Your task to perform on an android device: visit the assistant section in the google photos Image 0: 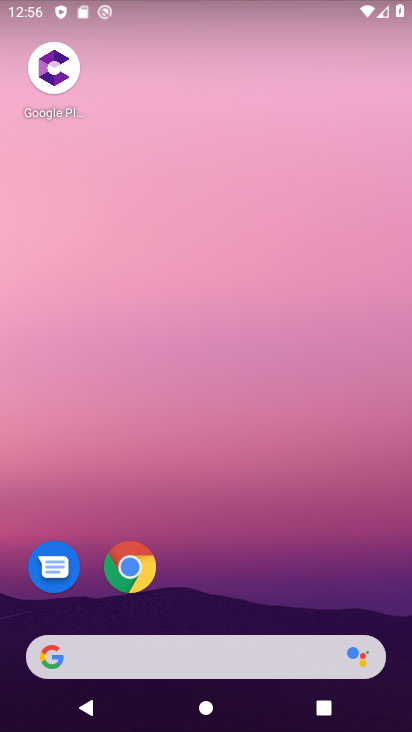
Step 0: drag from (195, 633) to (193, 9)
Your task to perform on an android device: visit the assistant section in the google photos Image 1: 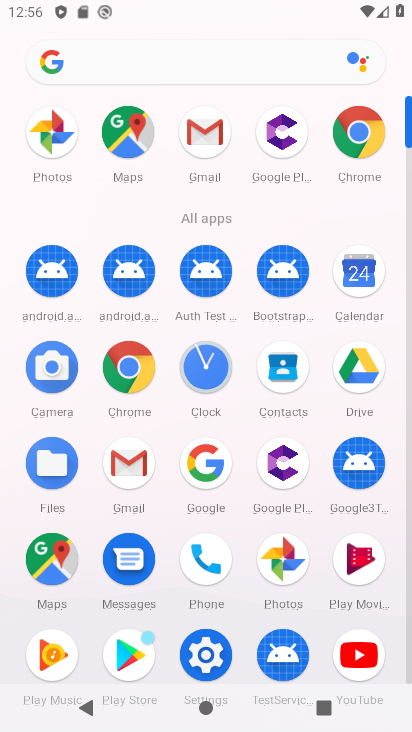
Step 1: click (276, 572)
Your task to perform on an android device: visit the assistant section in the google photos Image 2: 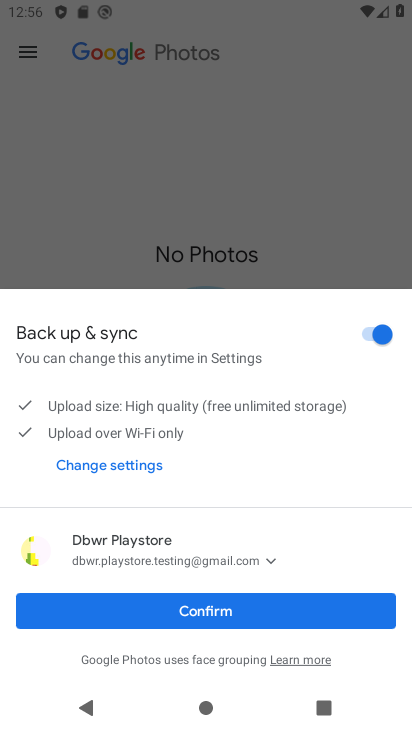
Step 2: click (248, 614)
Your task to perform on an android device: visit the assistant section in the google photos Image 3: 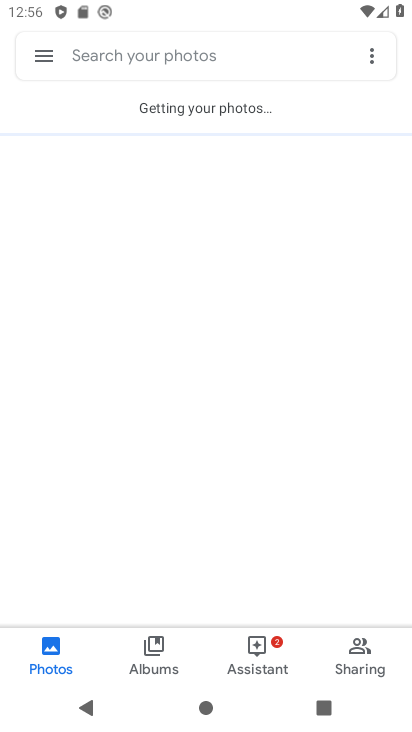
Step 3: click (40, 48)
Your task to perform on an android device: visit the assistant section in the google photos Image 4: 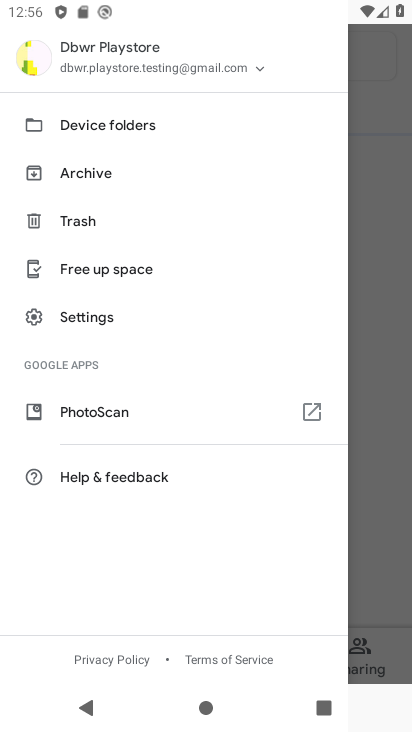
Step 4: click (380, 529)
Your task to perform on an android device: visit the assistant section in the google photos Image 5: 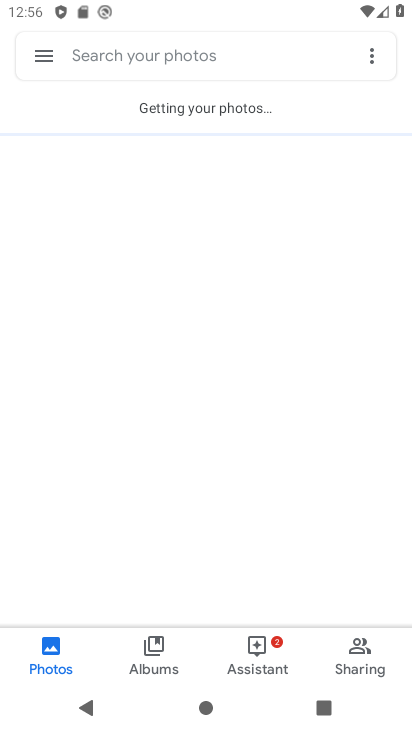
Step 5: click (244, 659)
Your task to perform on an android device: visit the assistant section in the google photos Image 6: 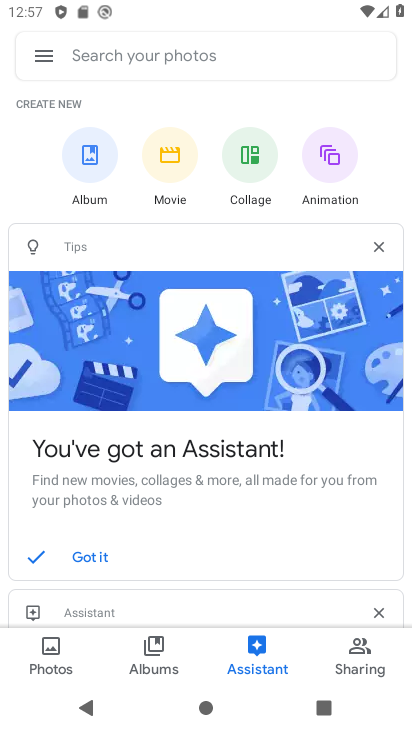
Step 6: task complete